Your task to perform on an android device: see creations saved in the google photos Image 0: 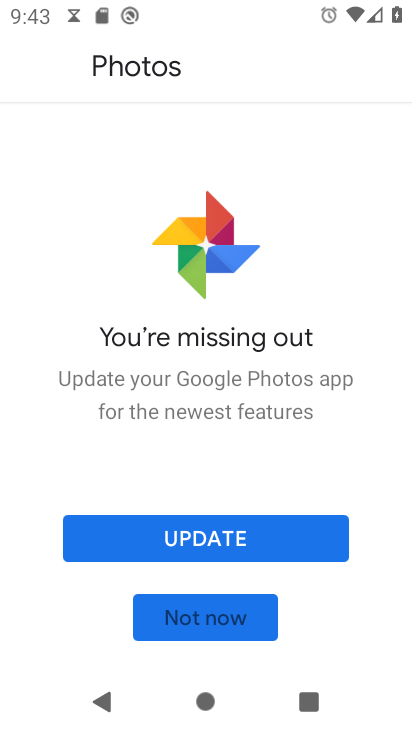
Step 0: click (193, 615)
Your task to perform on an android device: see creations saved in the google photos Image 1: 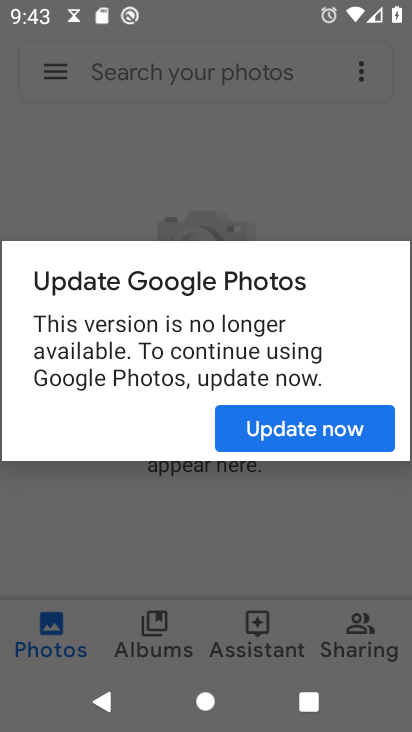
Step 1: click (323, 424)
Your task to perform on an android device: see creations saved in the google photos Image 2: 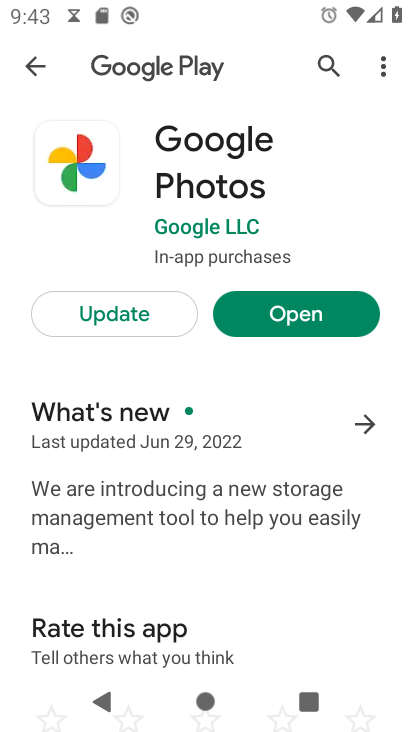
Step 2: click (307, 312)
Your task to perform on an android device: see creations saved in the google photos Image 3: 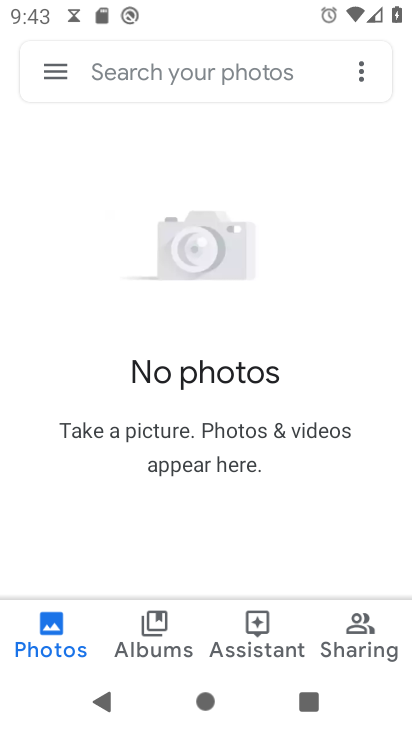
Step 3: click (162, 622)
Your task to perform on an android device: see creations saved in the google photos Image 4: 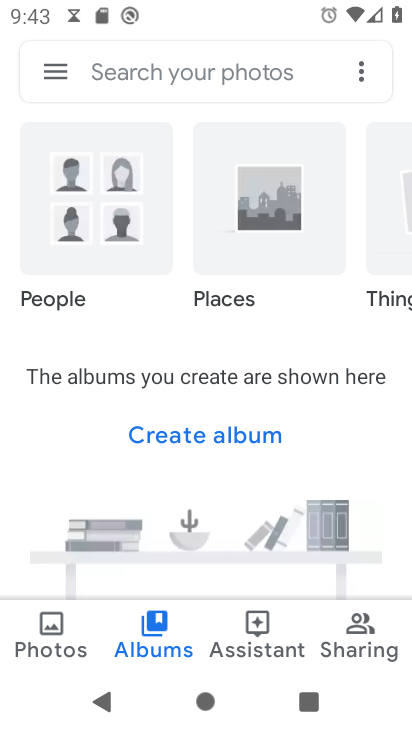
Step 4: click (154, 70)
Your task to perform on an android device: see creations saved in the google photos Image 5: 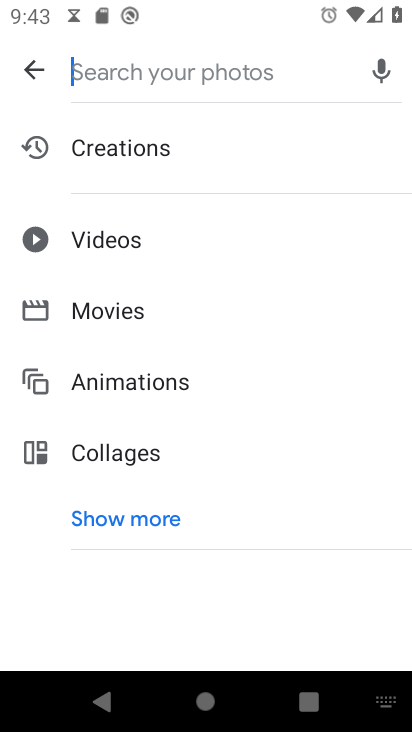
Step 5: click (137, 150)
Your task to perform on an android device: see creations saved in the google photos Image 6: 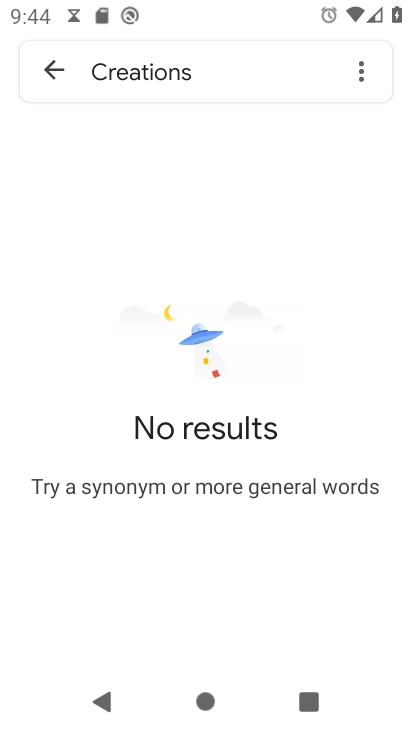
Step 6: task complete